Your task to perform on an android device: What's the weather today? Image 0: 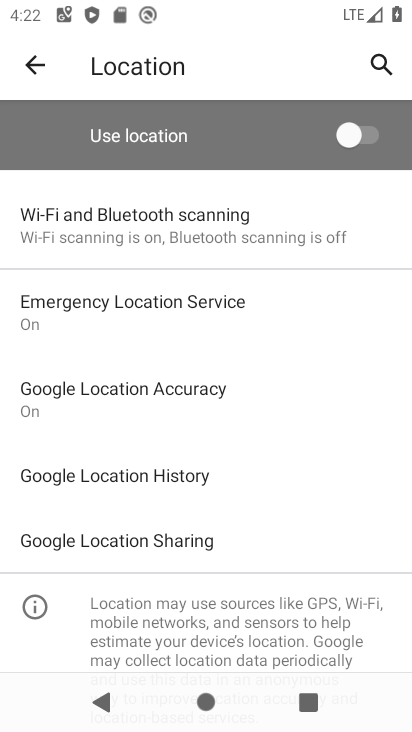
Step 0: press home button
Your task to perform on an android device: What's the weather today? Image 1: 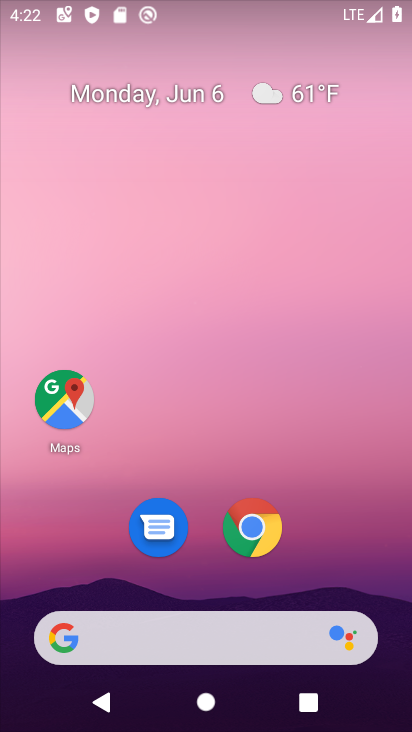
Step 1: click (183, 647)
Your task to perform on an android device: What's the weather today? Image 2: 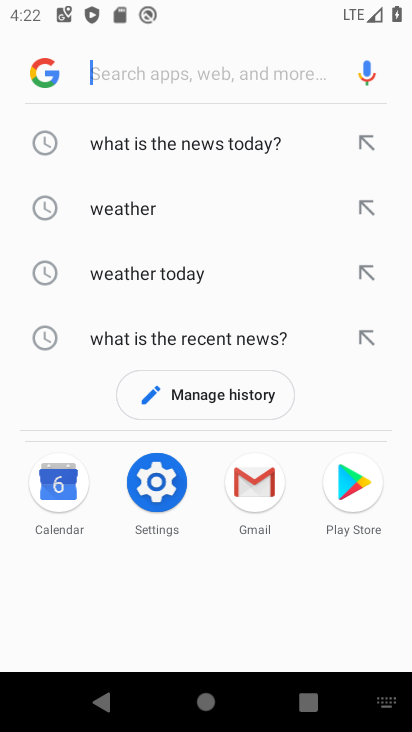
Step 2: click (184, 208)
Your task to perform on an android device: What's the weather today? Image 3: 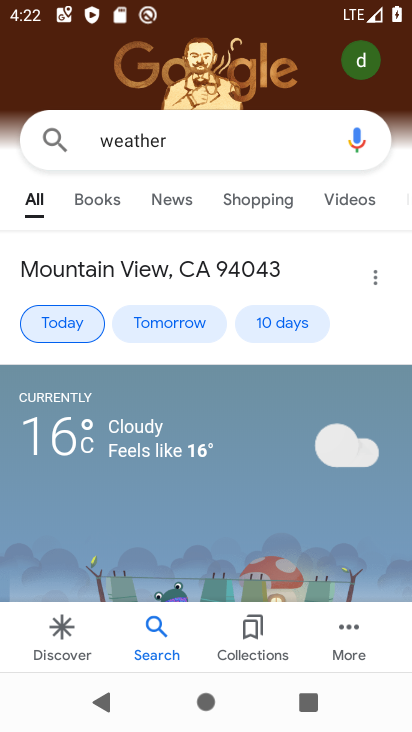
Step 3: drag from (263, 456) to (246, 240)
Your task to perform on an android device: What's the weather today? Image 4: 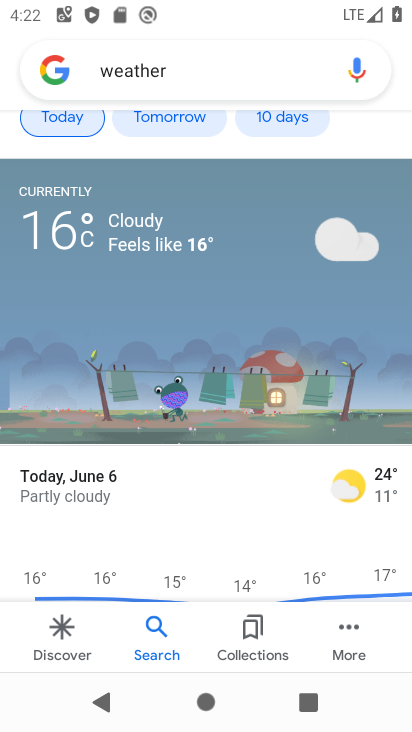
Step 4: drag from (256, 462) to (275, 257)
Your task to perform on an android device: What's the weather today? Image 5: 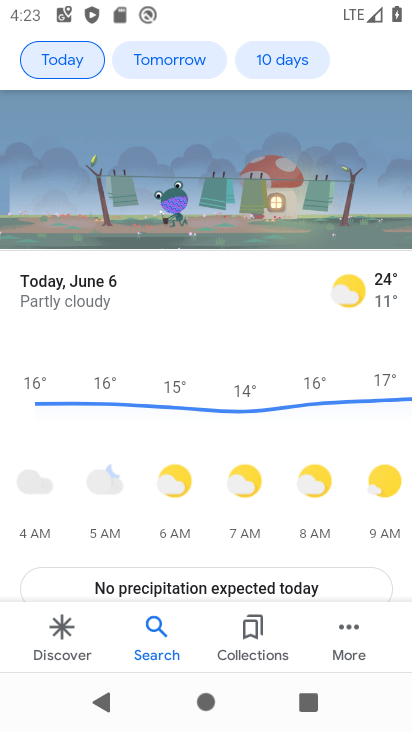
Step 5: click (275, 257)
Your task to perform on an android device: What's the weather today? Image 6: 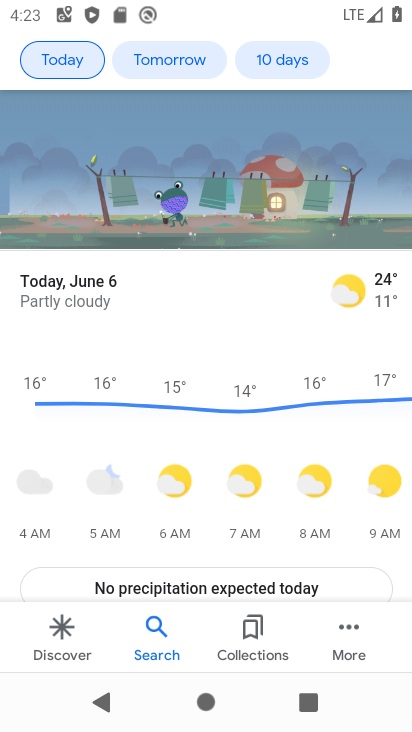
Step 6: task complete